Your task to perform on an android device: Open settings on Google Maps Image 0: 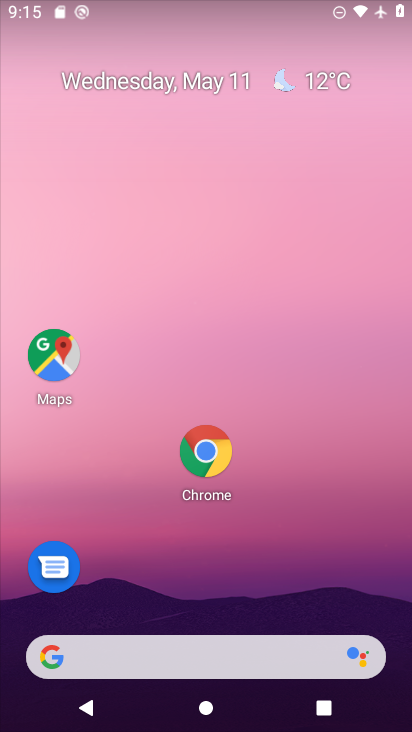
Step 0: click (40, 356)
Your task to perform on an android device: Open settings on Google Maps Image 1: 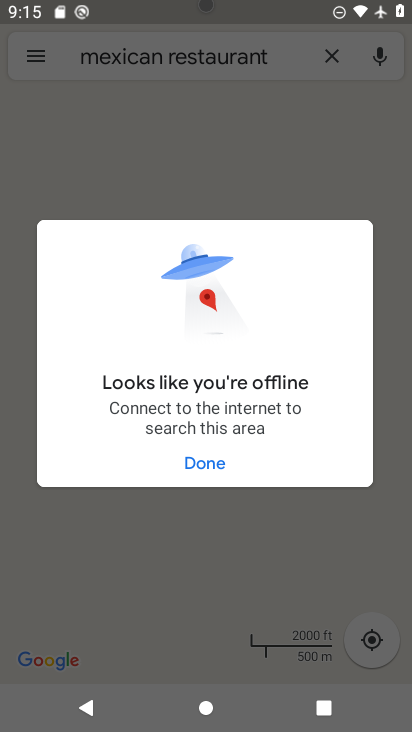
Step 1: click (213, 472)
Your task to perform on an android device: Open settings on Google Maps Image 2: 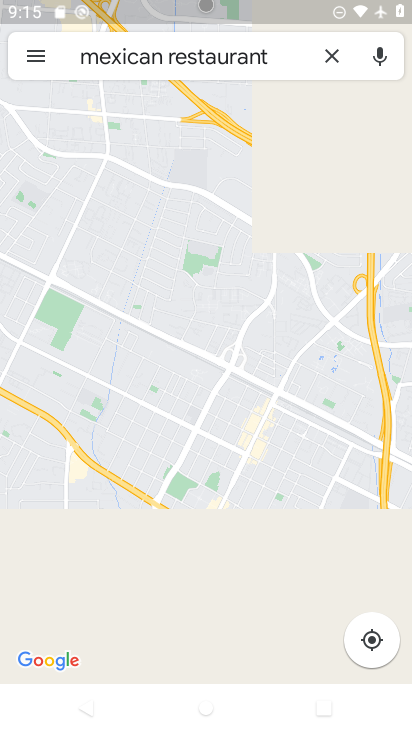
Step 2: click (36, 51)
Your task to perform on an android device: Open settings on Google Maps Image 3: 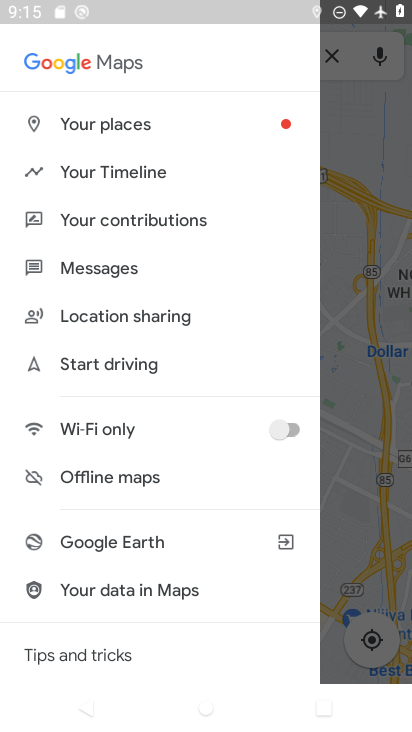
Step 3: drag from (173, 636) to (246, 95)
Your task to perform on an android device: Open settings on Google Maps Image 4: 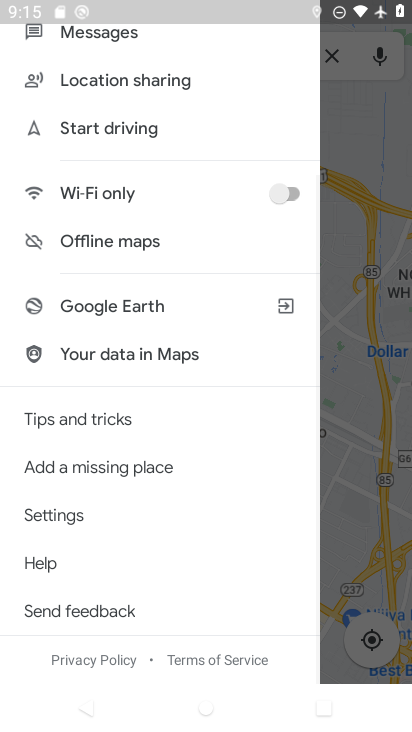
Step 4: click (68, 515)
Your task to perform on an android device: Open settings on Google Maps Image 5: 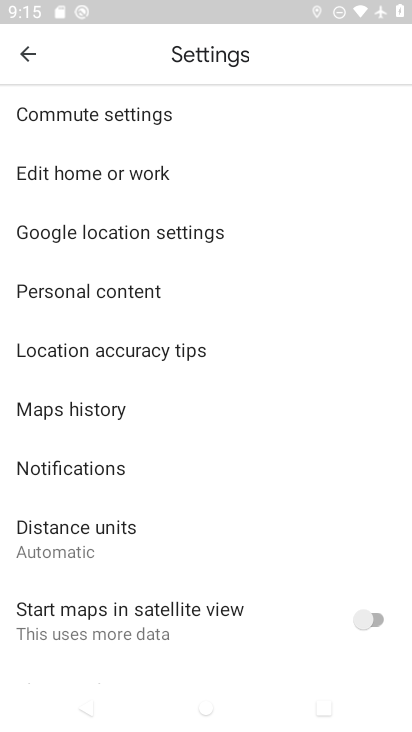
Step 5: task complete